Your task to perform on an android device: Open internet settings Image 0: 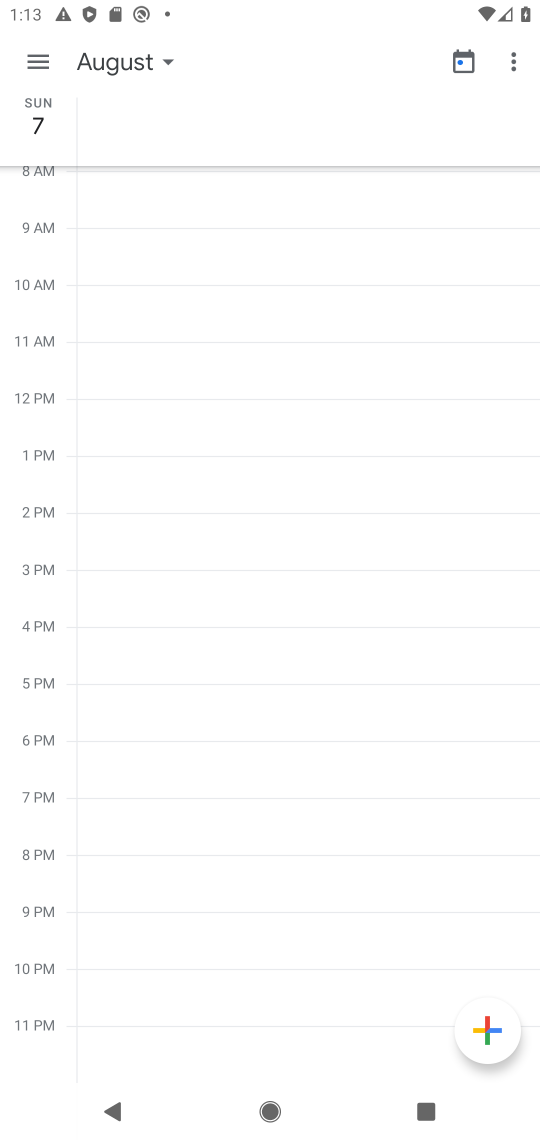
Step 0: press home button
Your task to perform on an android device: Open internet settings Image 1: 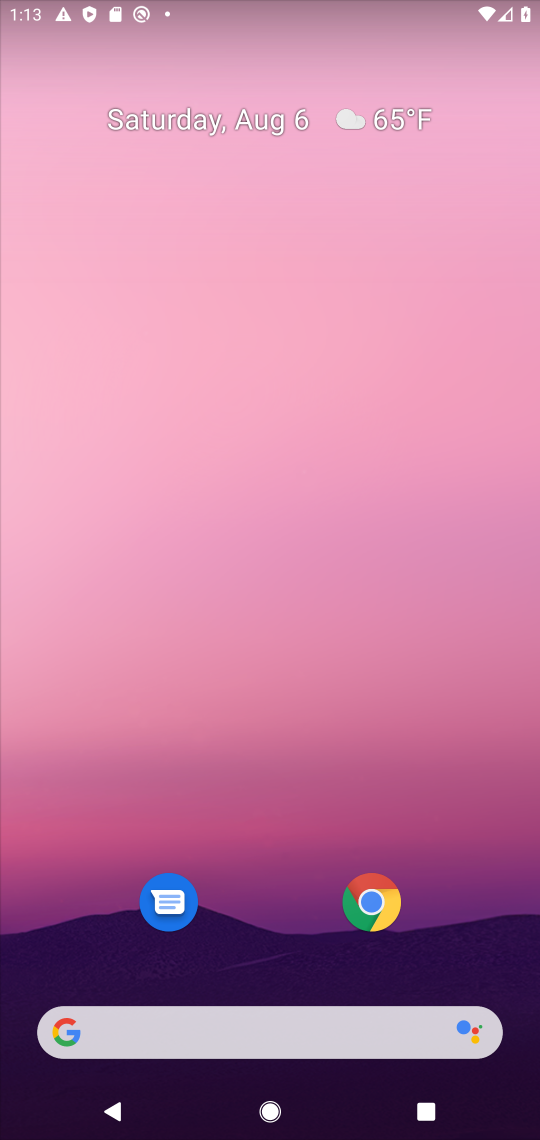
Step 1: drag from (266, 804) to (199, 241)
Your task to perform on an android device: Open internet settings Image 2: 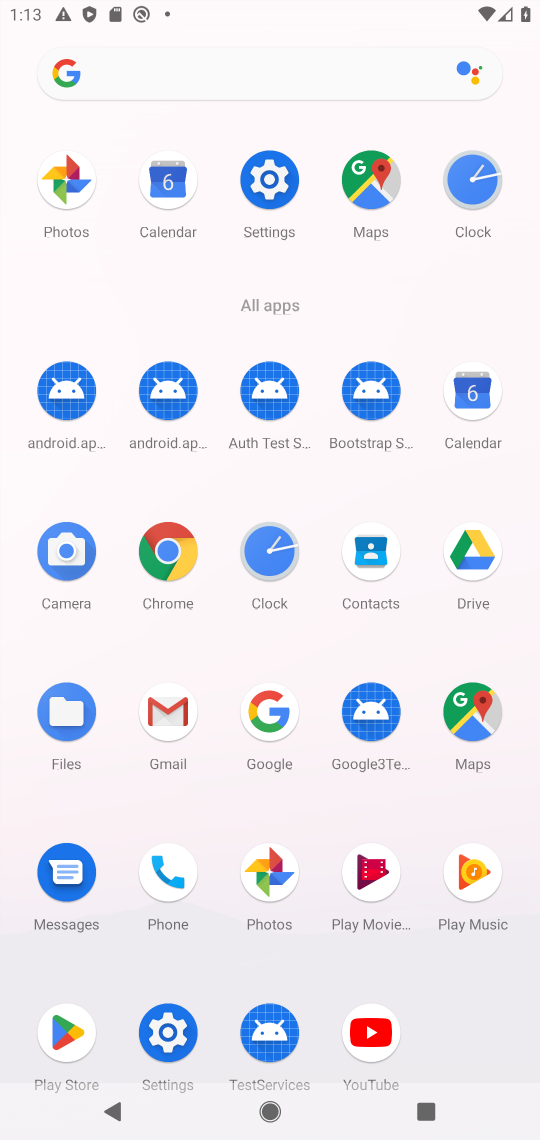
Step 2: click (266, 176)
Your task to perform on an android device: Open internet settings Image 3: 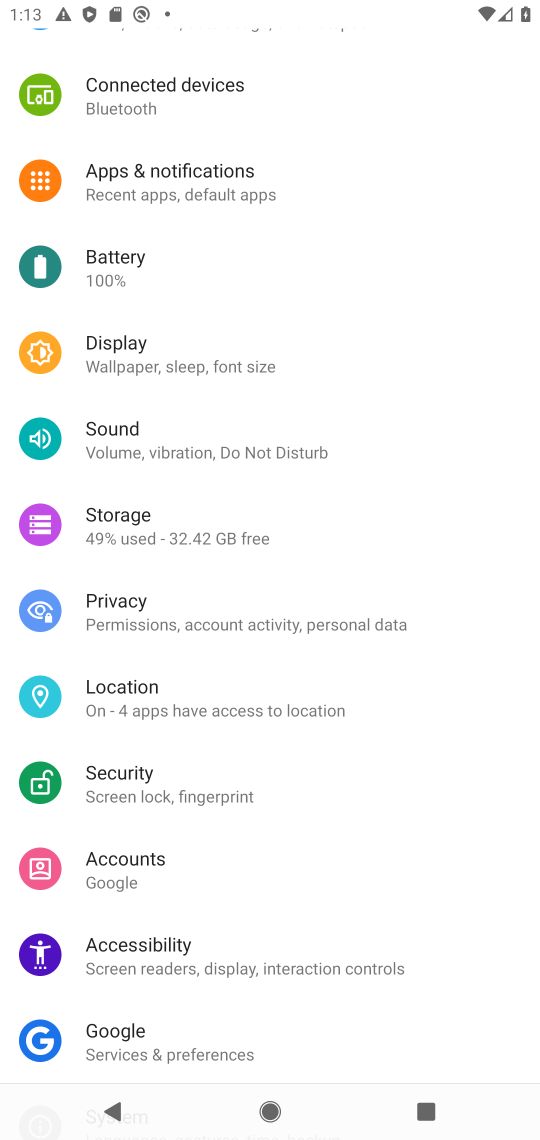
Step 3: drag from (320, 232) to (317, 551)
Your task to perform on an android device: Open internet settings Image 4: 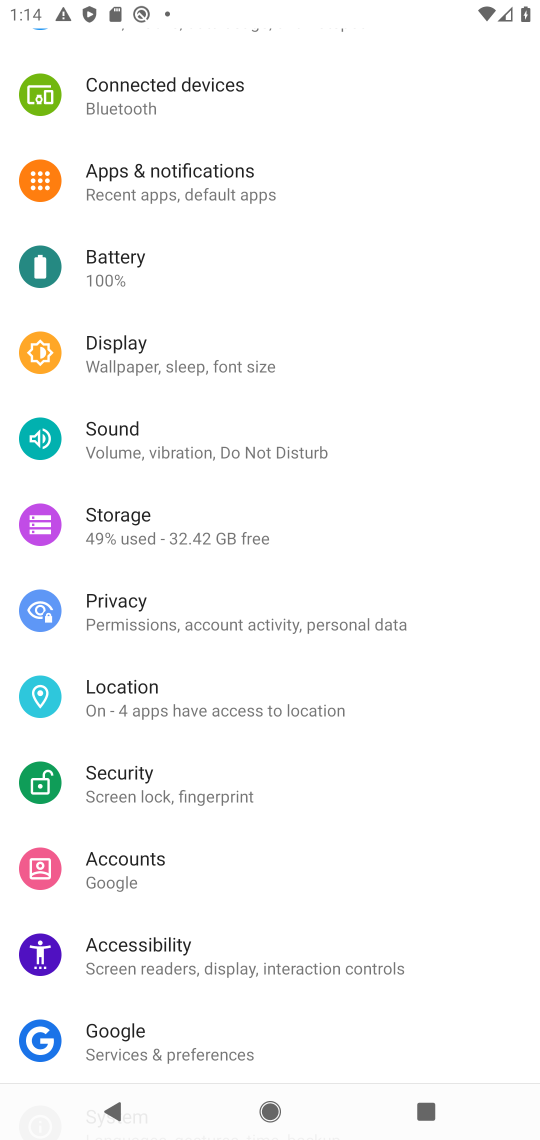
Step 4: drag from (273, 232) to (269, 705)
Your task to perform on an android device: Open internet settings Image 5: 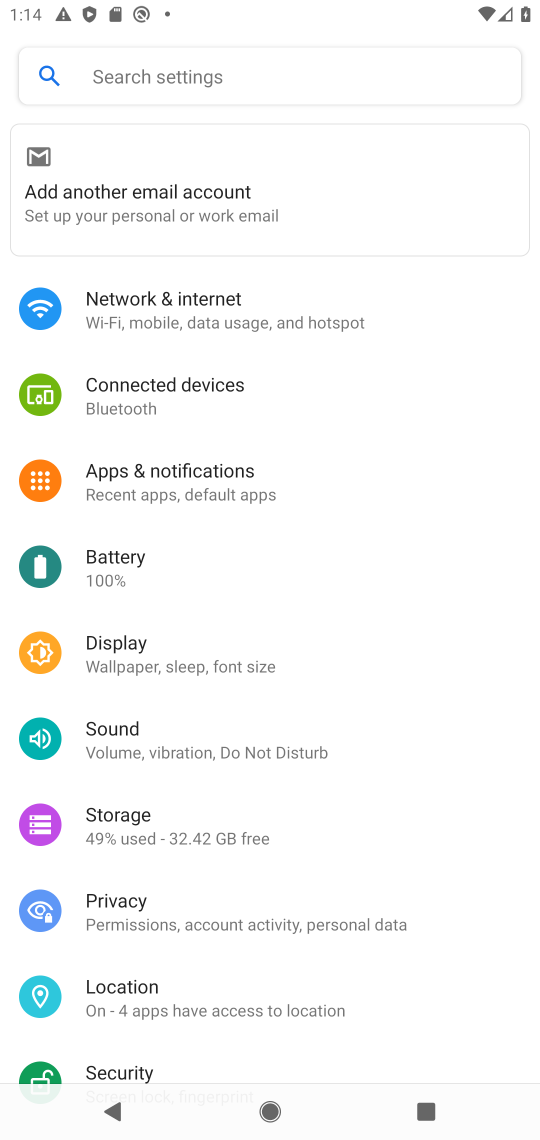
Step 5: click (167, 292)
Your task to perform on an android device: Open internet settings Image 6: 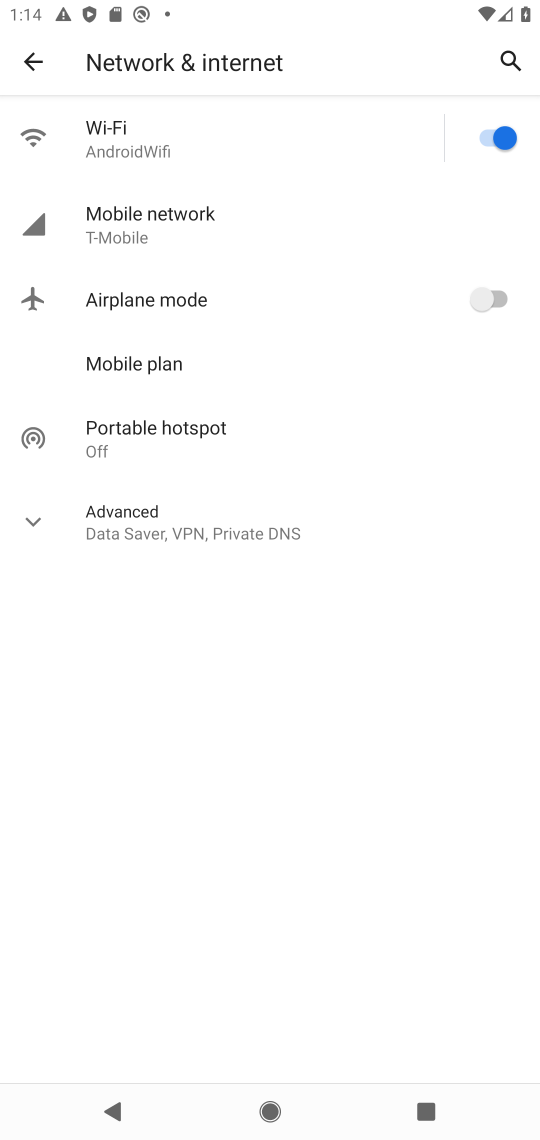
Step 6: task complete